Your task to perform on an android device: open device folders in google photos Image 0: 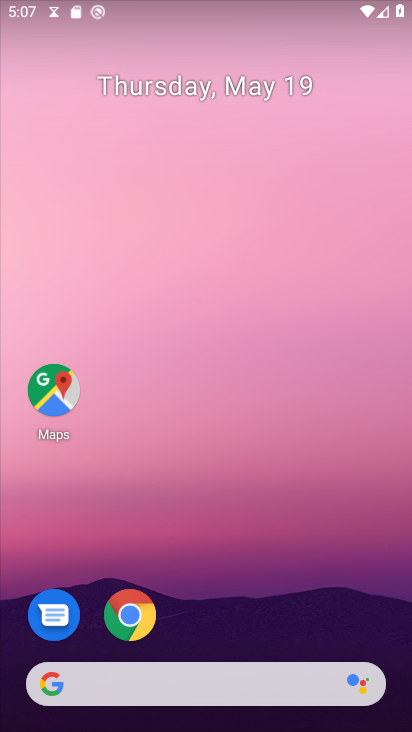
Step 0: drag from (317, 690) to (301, 6)
Your task to perform on an android device: open device folders in google photos Image 1: 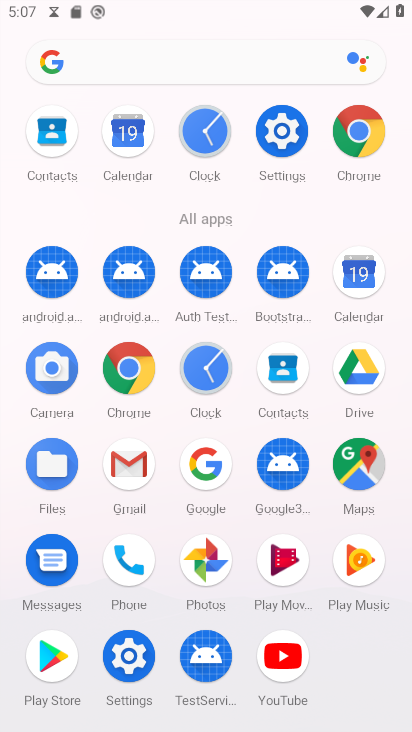
Step 1: click (215, 571)
Your task to perform on an android device: open device folders in google photos Image 2: 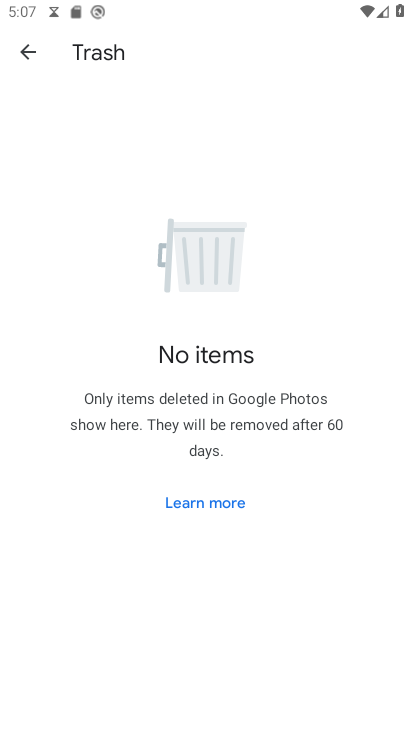
Step 2: press back button
Your task to perform on an android device: open device folders in google photos Image 3: 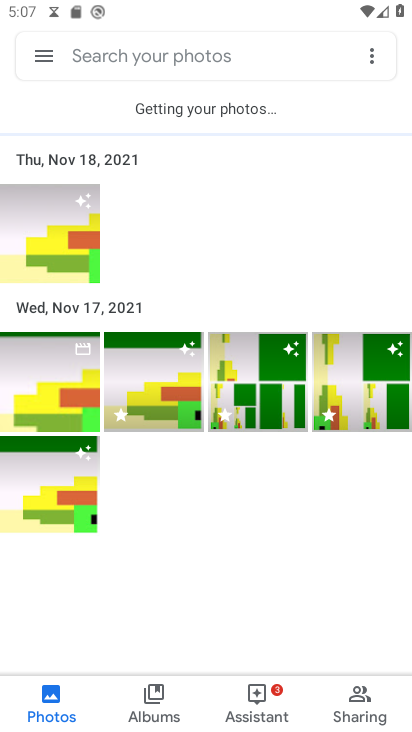
Step 3: click (27, 48)
Your task to perform on an android device: open device folders in google photos Image 4: 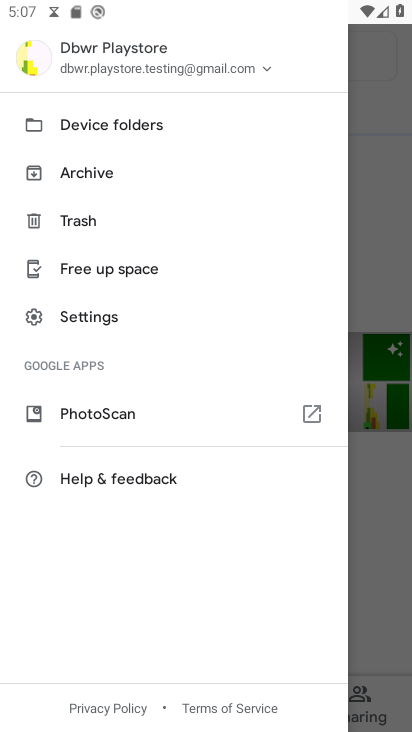
Step 4: click (189, 110)
Your task to perform on an android device: open device folders in google photos Image 5: 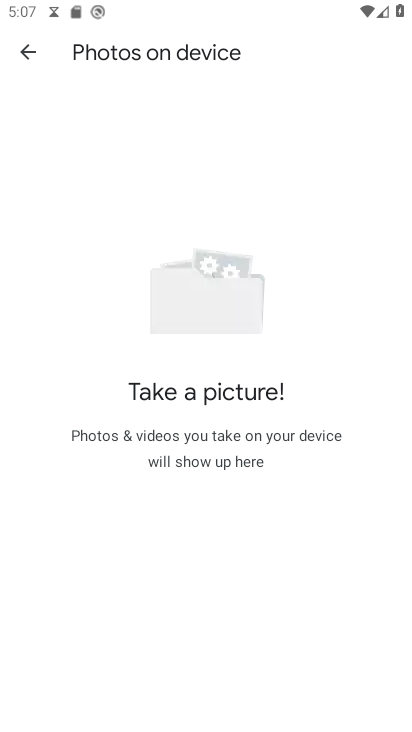
Step 5: task complete